Your task to perform on an android device: Open calendar and show me the fourth week of next month Image 0: 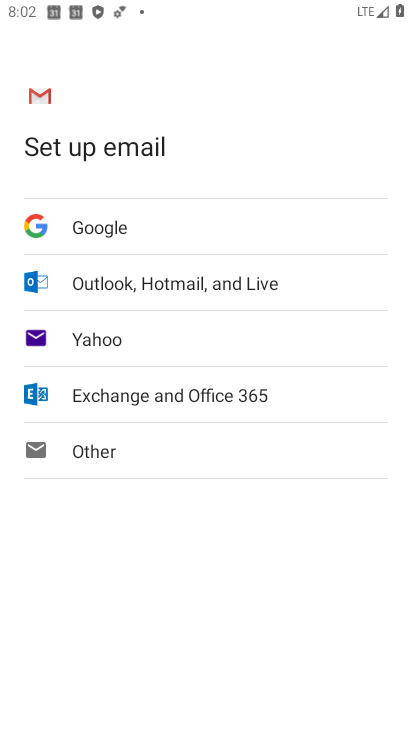
Step 0: press back button
Your task to perform on an android device: Open calendar and show me the fourth week of next month Image 1: 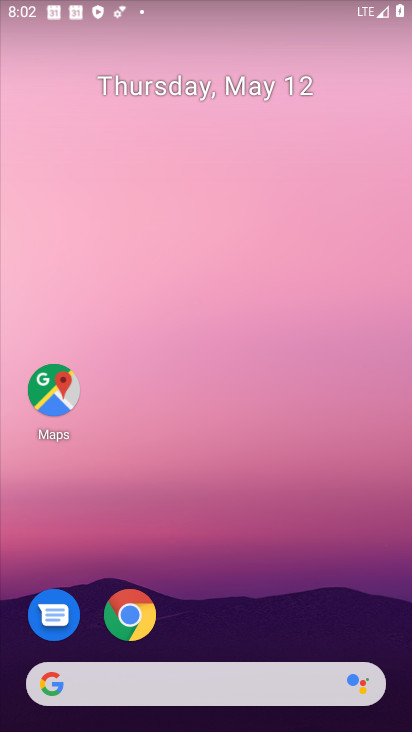
Step 1: drag from (277, 580) to (196, 18)
Your task to perform on an android device: Open calendar and show me the fourth week of next month Image 2: 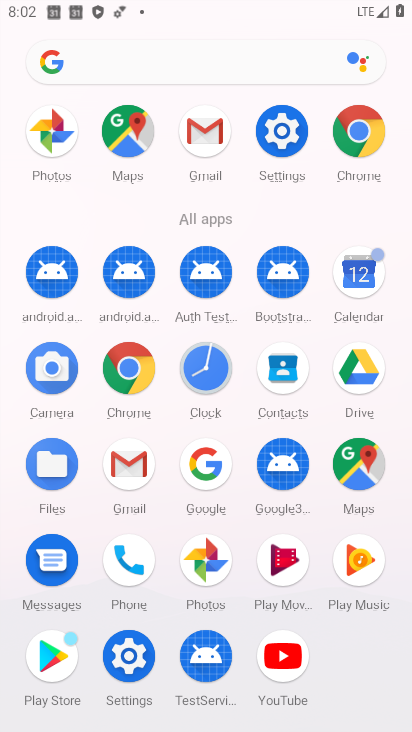
Step 2: drag from (4, 465) to (0, 149)
Your task to perform on an android device: Open calendar and show me the fourth week of next month Image 3: 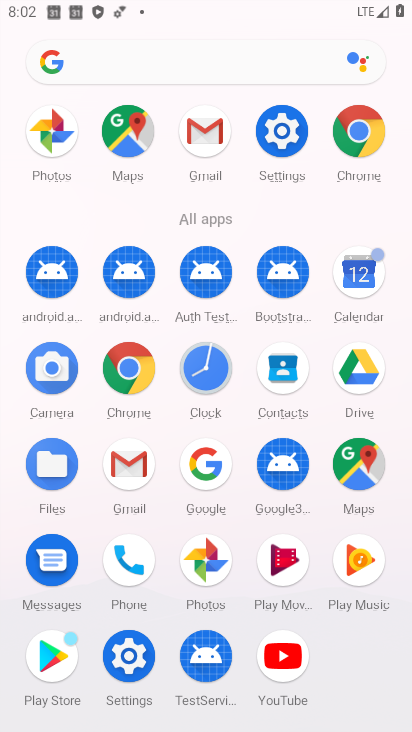
Step 3: click (363, 266)
Your task to perform on an android device: Open calendar and show me the fourth week of next month Image 4: 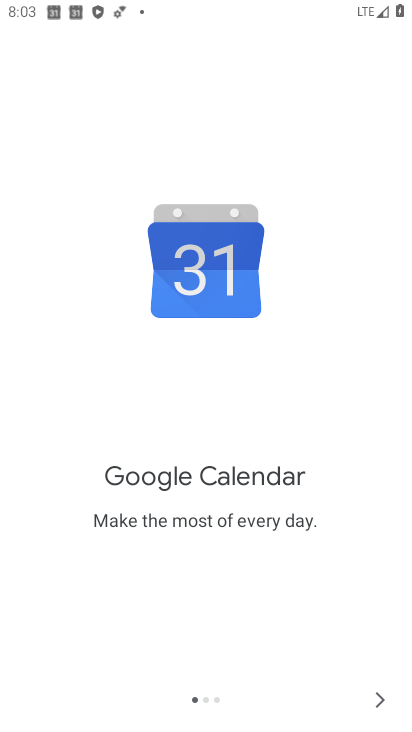
Step 4: click (384, 693)
Your task to perform on an android device: Open calendar and show me the fourth week of next month Image 5: 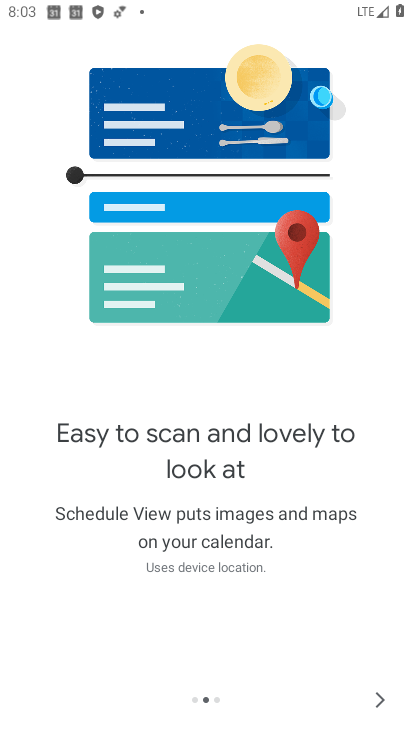
Step 5: click (375, 682)
Your task to perform on an android device: Open calendar and show me the fourth week of next month Image 6: 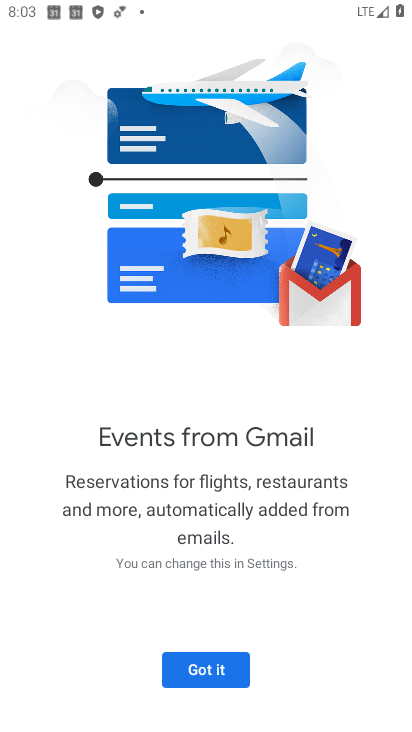
Step 6: click (375, 682)
Your task to perform on an android device: Open calendar and show me the fourth week of next month Image 7: 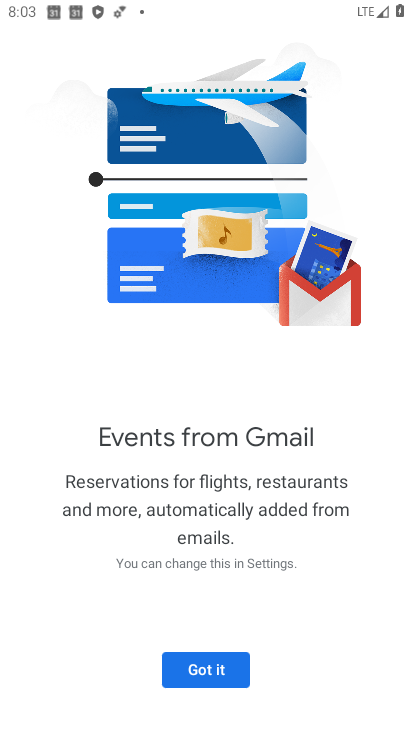
Step 7: click (203, 667)
Your task to perform on an android device: Open calendar and show me the fourth week of next month Image 8: 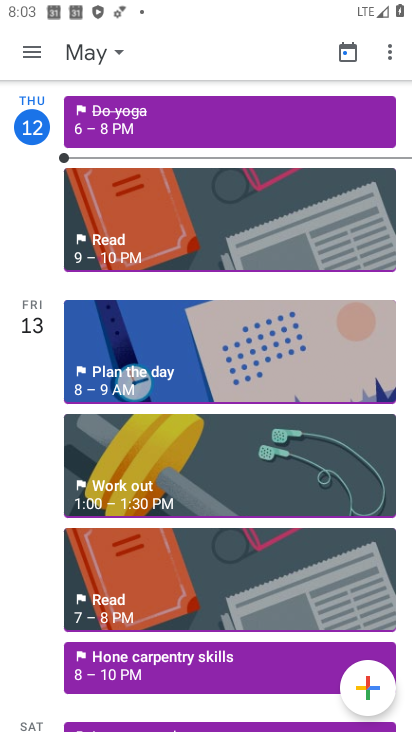
Step 8: click (81, 43)
Your task to perform on an android device: Open calendar and show me the fourth week of next month Image 9: 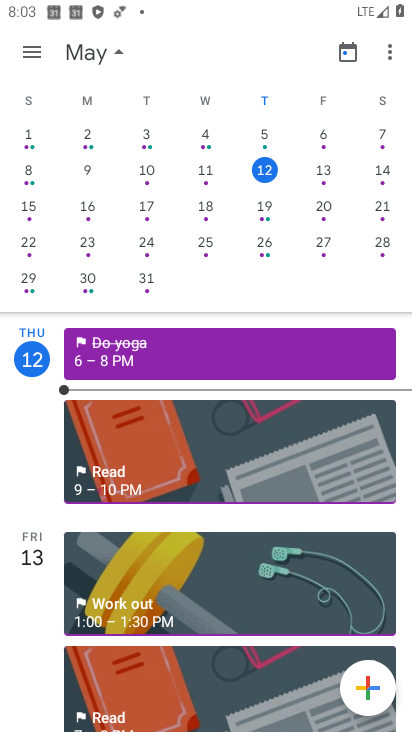
Step 9: drag from (375, 211) to (3, 171)
Your task to perform on an android device: Open calendar and show me the fourth week of next month Image 10: 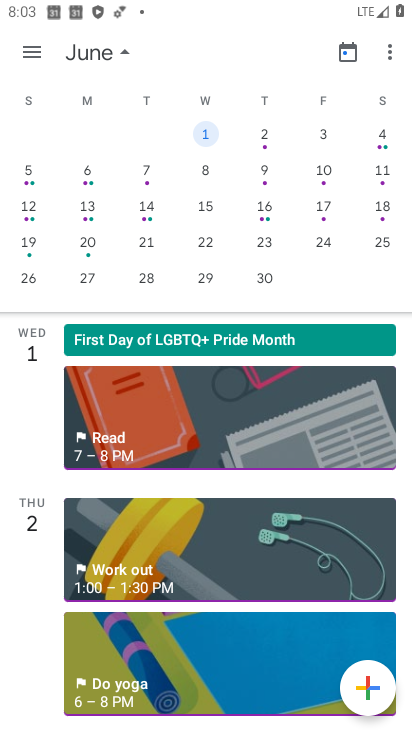
Step 10: click (25, 244)
Your task to perform on an android device: Open calendar and show me the fourth week of next month Image 11: 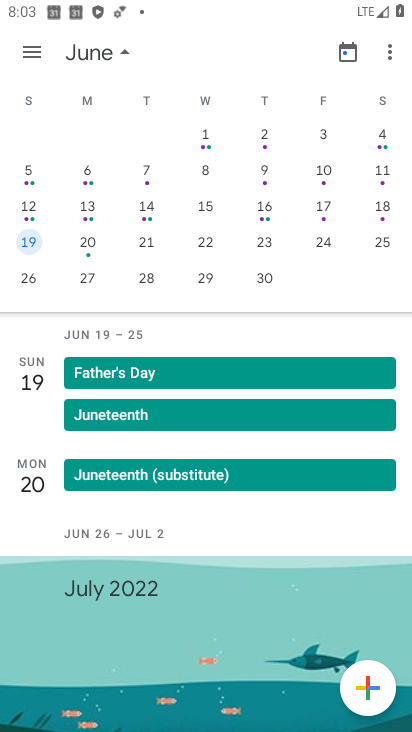
Step 11: click (34, 49)
Your task to perform on an android device: Open calendar and show me the fourth week of next month Image 12: 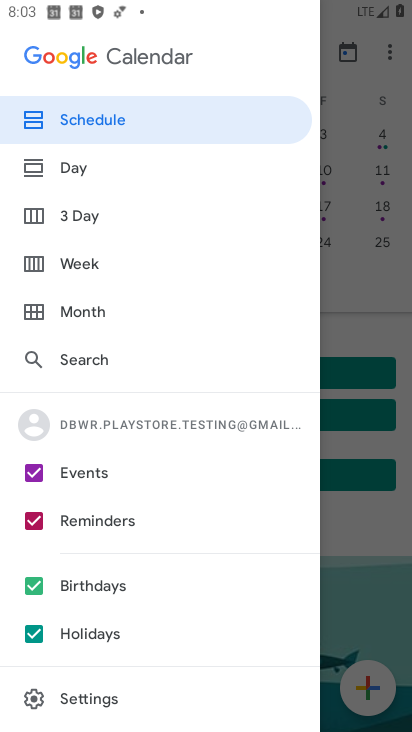
Step 12: click (92, 266)
Your task to perform on an android device: Open calendar and show me the fourth week of next month Image 13: 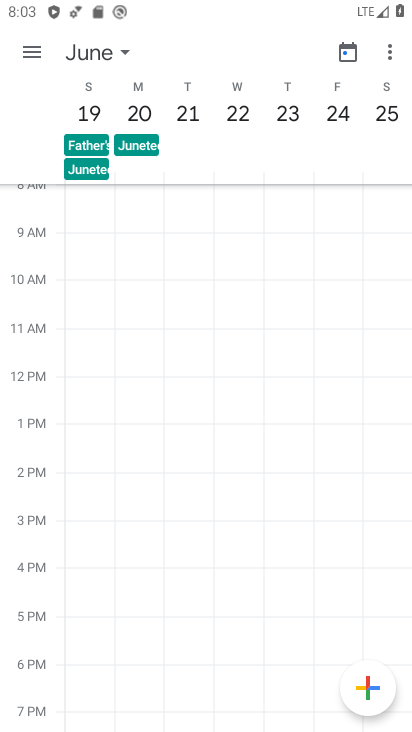
Step 13: task complete